Your task to perform on an android device: Go to Maps Image 0: 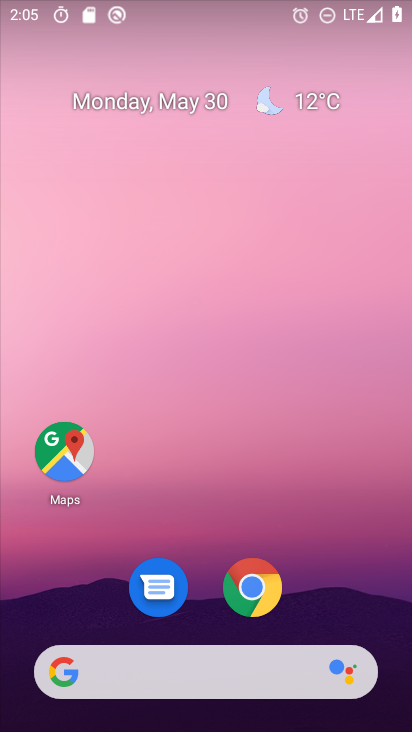
Step 0: click (72, 462)
Your task to perform on an android device: Go to Maps Image 1: 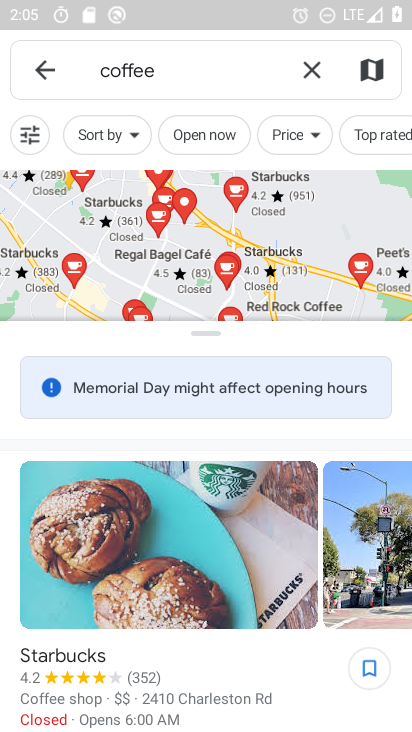
Step 1: task complete